Your task to perform on an android device: Search for vegetarian restaurants on Maps Image 0: 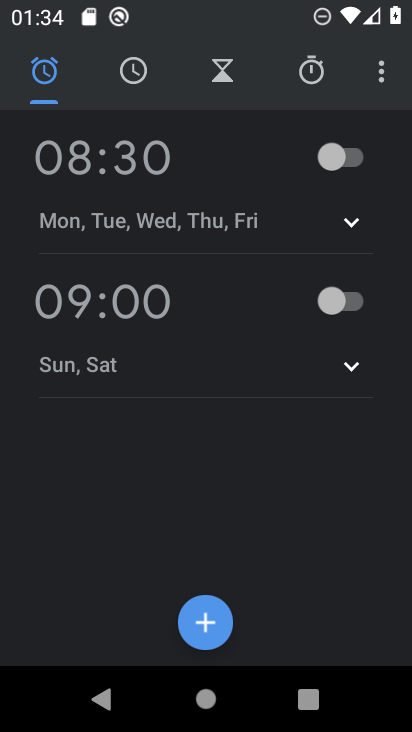
Step 0: press home button
Your task to perform on an android device: Search for vegetarian restaurants on Maps Image 1: 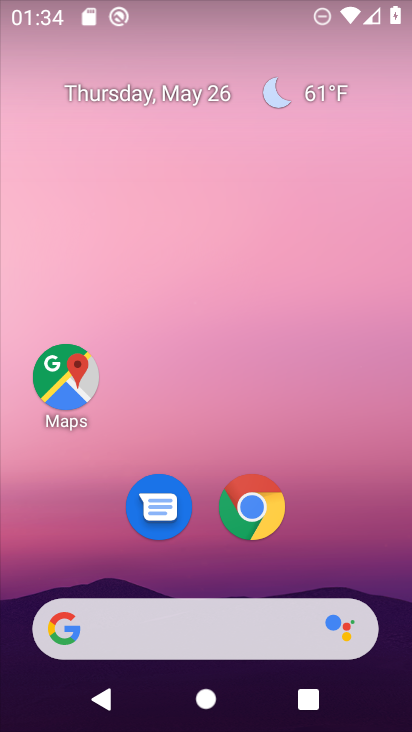
Step 1: drag from (322, 512) to (275, 276)
Your task to perform on an android device: Search for vegetarian restaurants on Maps Image 2: 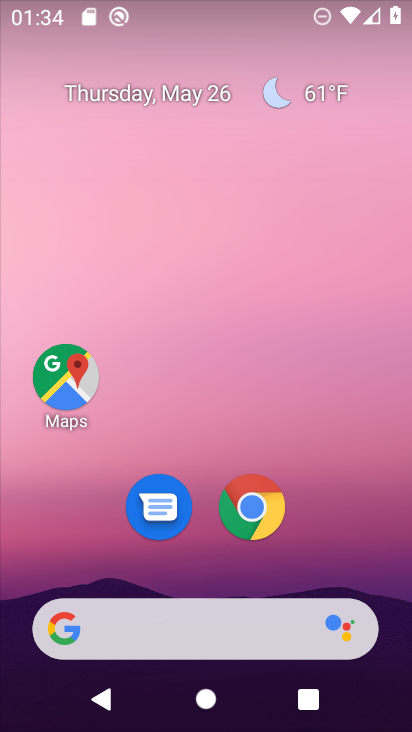
Step 2: click (59, 390)
Your task to perform on an android device: Search for vegetarian restaurants on Maps Image 3: 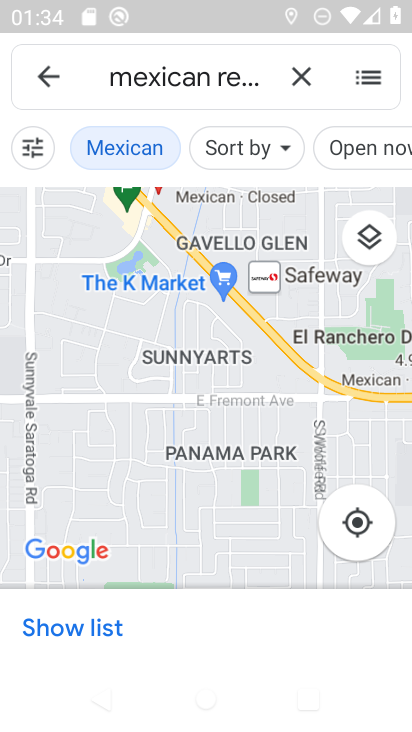
Step 3: click (303, 88)
Your task to perform on an android device: Search for vegetarian restaurants on Maps Image 4: 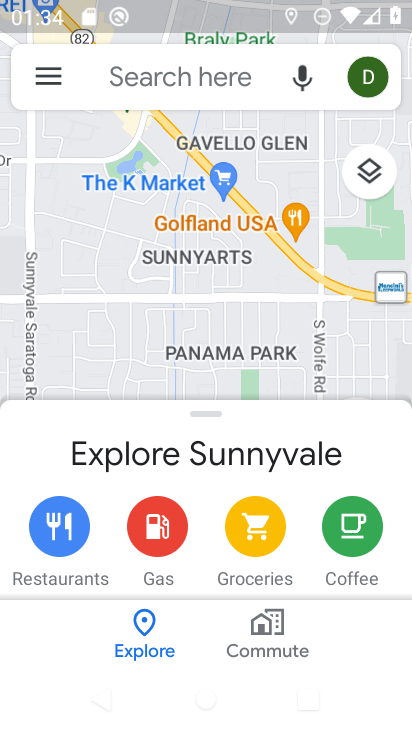
Step 4: click (188, 92)
Your task to perform on an android device: Search for vegetarian restaurants on Maps Image 5: 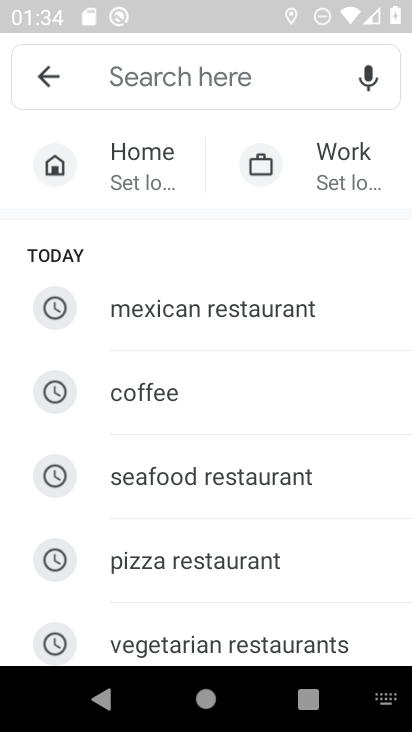
Step 5: click (191, 614)
Your task to perform on an android device: Search for vegetarian restaurants on Maps Image 6: 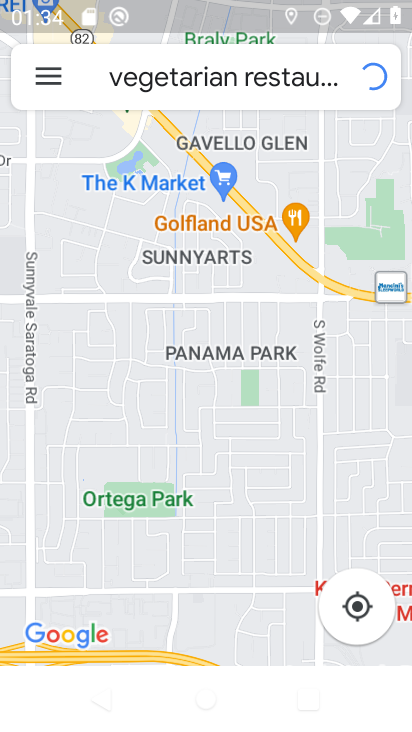
Step 6: task complete